Your task to perform on an android device: Open sound settings Image 0: 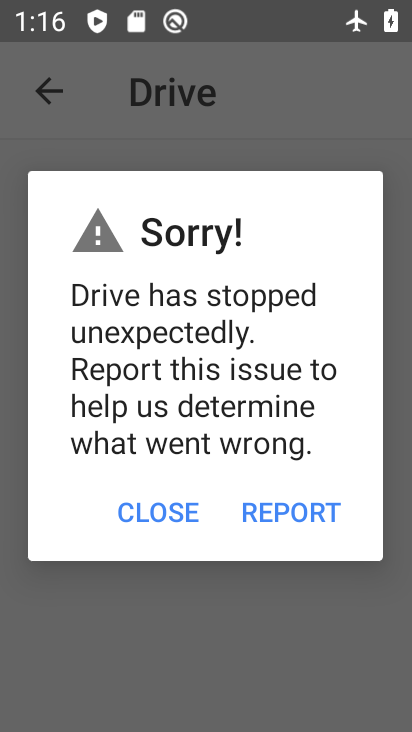
Step 0: press home button
Your task to perform on an android device: Open sound settings Image 1: 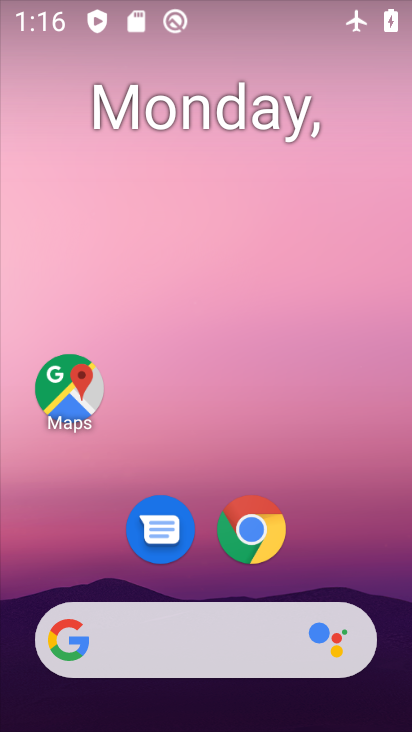
Step 1: drag from (379, 532) to (309, 268)
Your task to perform on an android device: Open sound settings Image 2: 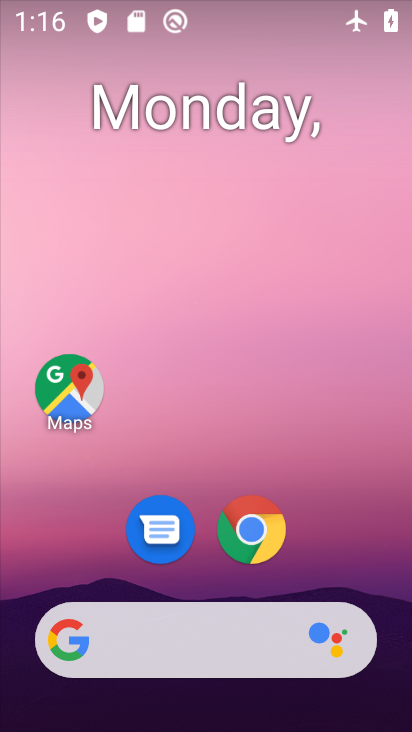
Step 2: drag from (334, 342) to (321, 174)
Your task to perform on an android device: Open sound settings Image 3: 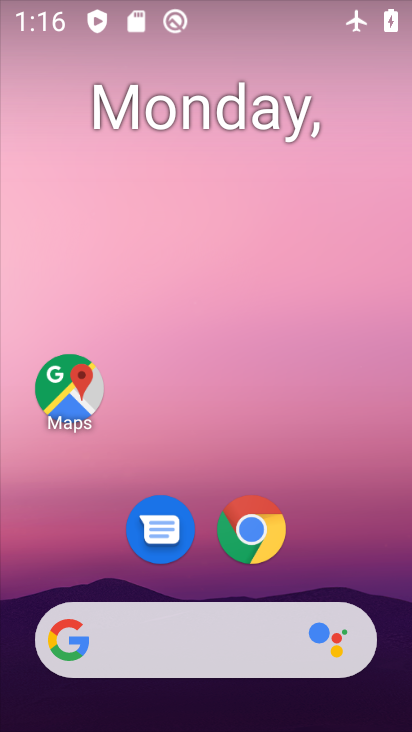
Step 3: drag from (351, 475) to (336, 1)
Your task to perform on an android device: Open sound settings Image 4: 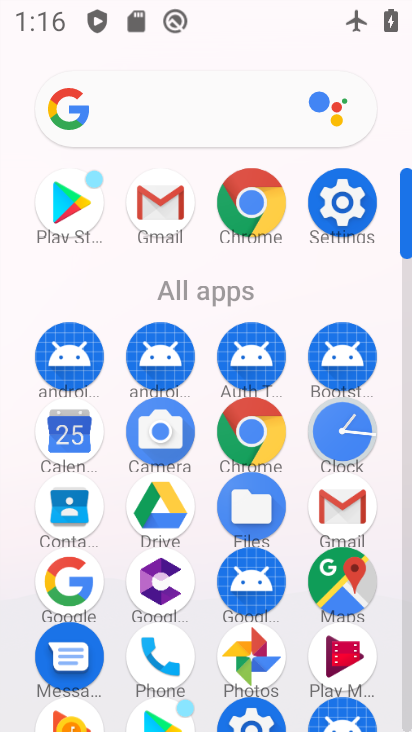
Step 4: click (329, 182)
Your task to perform on an android device: Open sound settings Image 5: 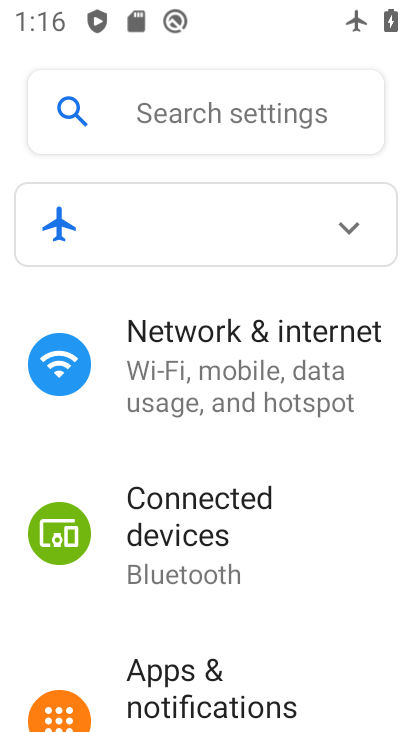
Step 5: drag from (301, 622) to (284, 195)
Your task to perform on an android device: Open sound settings Image 6: 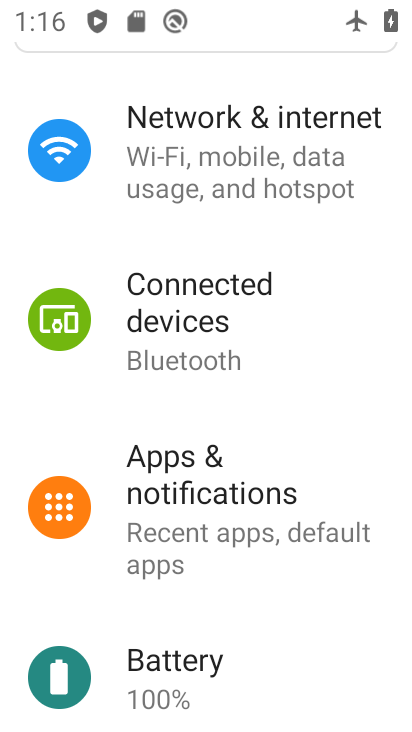
Step 6: drag from (302, 559) to (365, 156)
Your task to perform on an android device: Open sound settings Image 7: 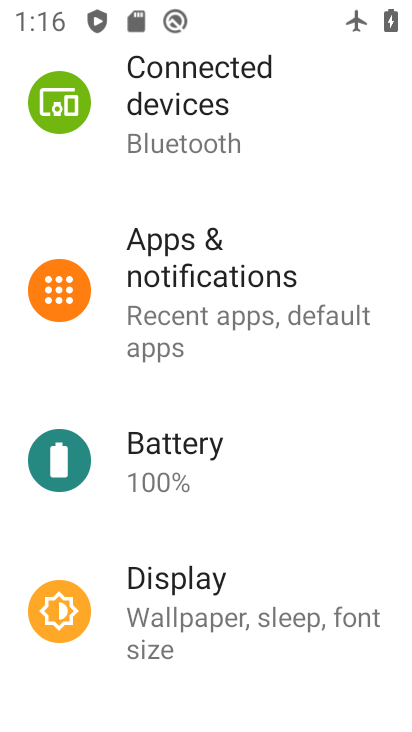
Step 7: drag from (287, 573) to (264, 181)
Your task to perform on an android device: Open sound settings Image 8: 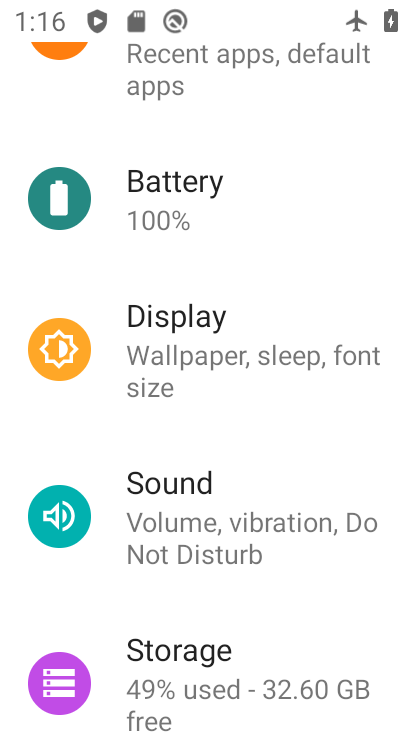
Step 8: click (230, 507)
Your task to perform on an android device: Open sound settings Image 9: 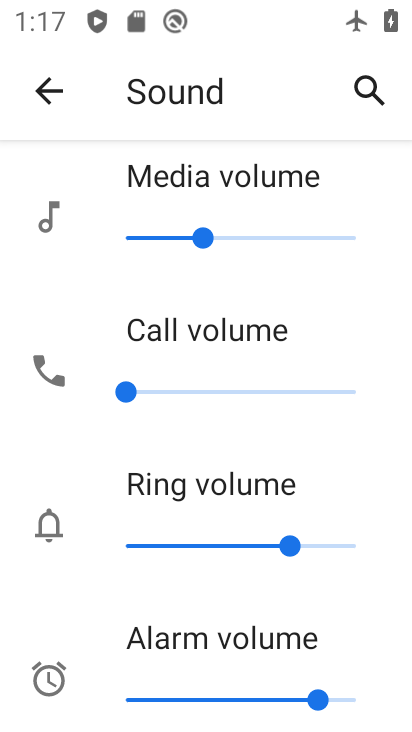
Step 9: task complete